Your task to perform on an android device: empty trash in google photos Image 0: 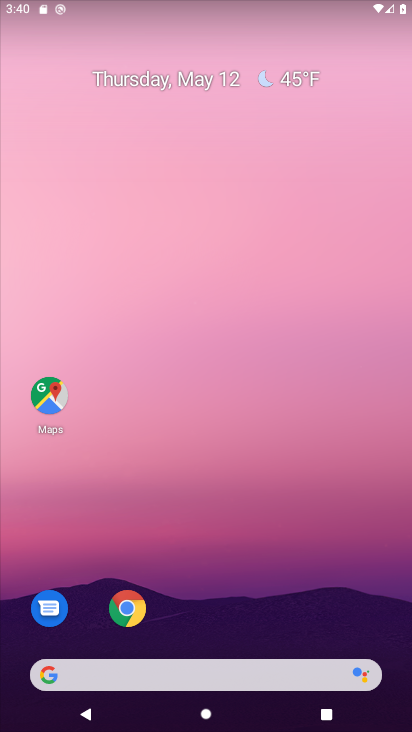
Step 0: drag from (293, 604) to (242, 21)
Your task to perform on an android device: empty trash in google photos Image 1: 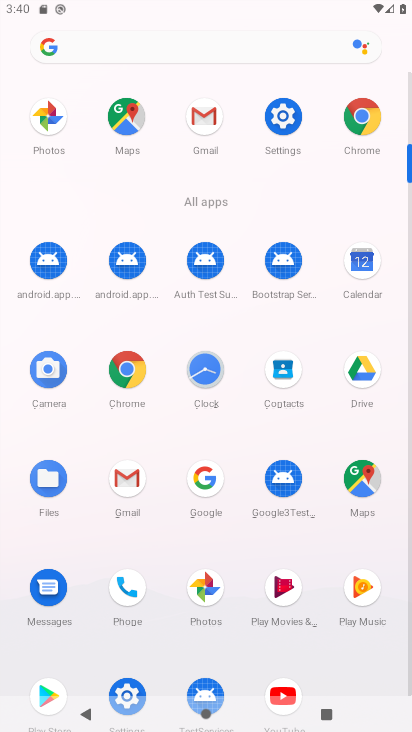
Step 1: click (55, 114)
Your task to perform on an android device: empty trash in google photos Image 2: 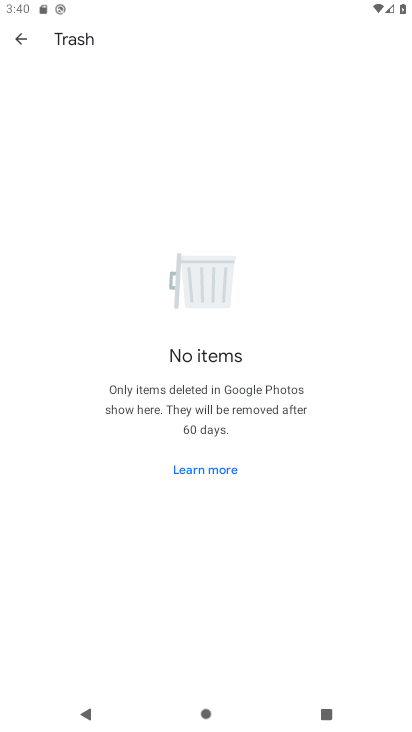
Step 2: task complete